Your task to perform on an android device: Set the phone to "Do not disturb". Image 0: 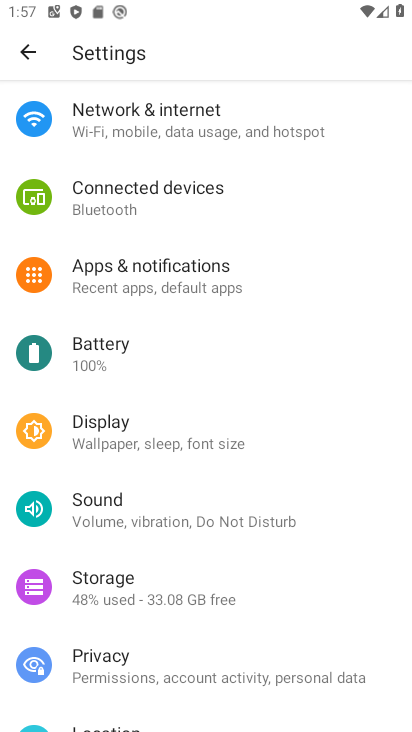
Step 0: click (234, 506)
Your task to perform on an android device: Set the phone to "Do not disturb". Image 1: 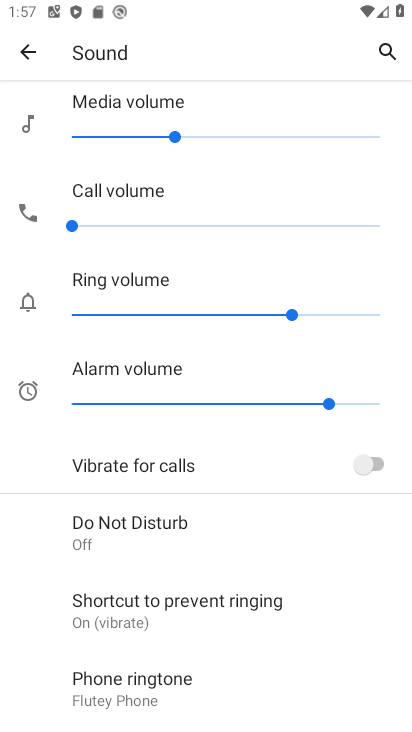
Step 1: click (196, 521)
Your task to perform on an android device: Set the phone to "Do not disturb". Image 2: 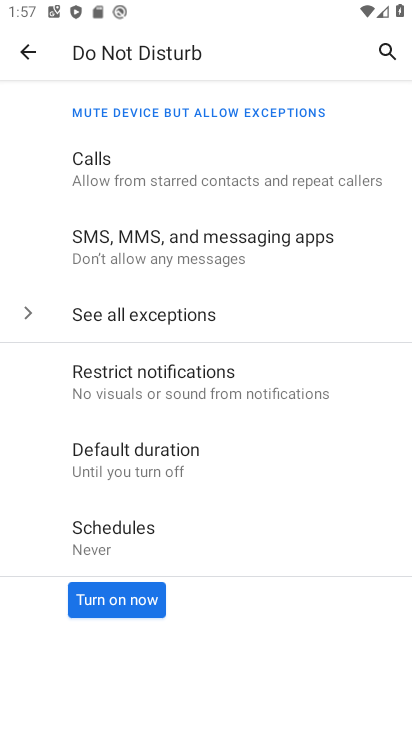
Step 2: click (155, 601)
Your task to perform on an android device: Set the phone to "Do not disturb". Image 3: 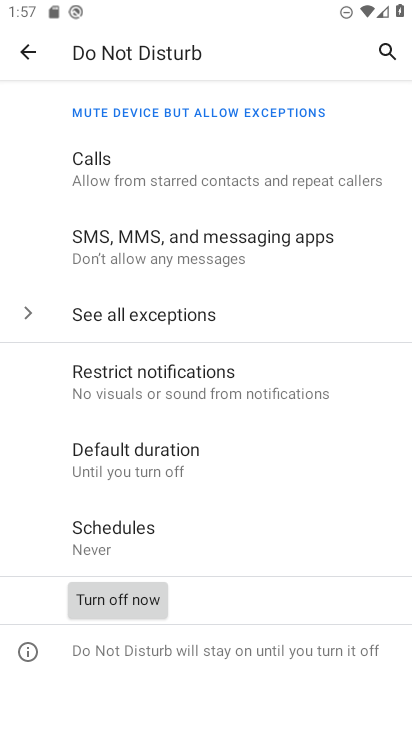
Step 3: click (28, 46)
Your task to perform on an android device: Set the phone to "Do not disturb". Image 4: 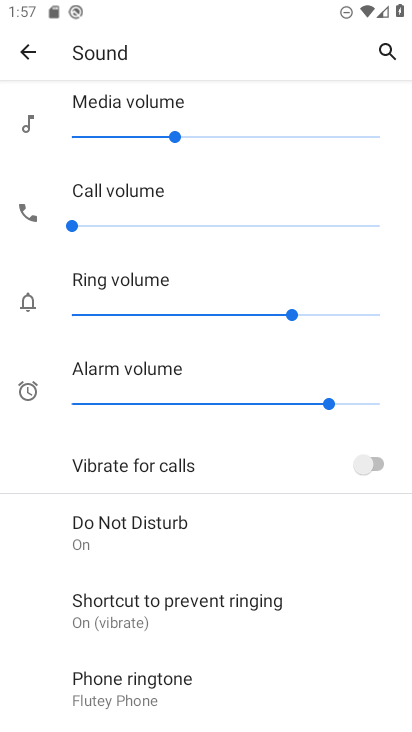
Step 4: task complete